Your task to perform on an android device: Search for the new Nike Air Jordan 33 on Nike.com Image 0: 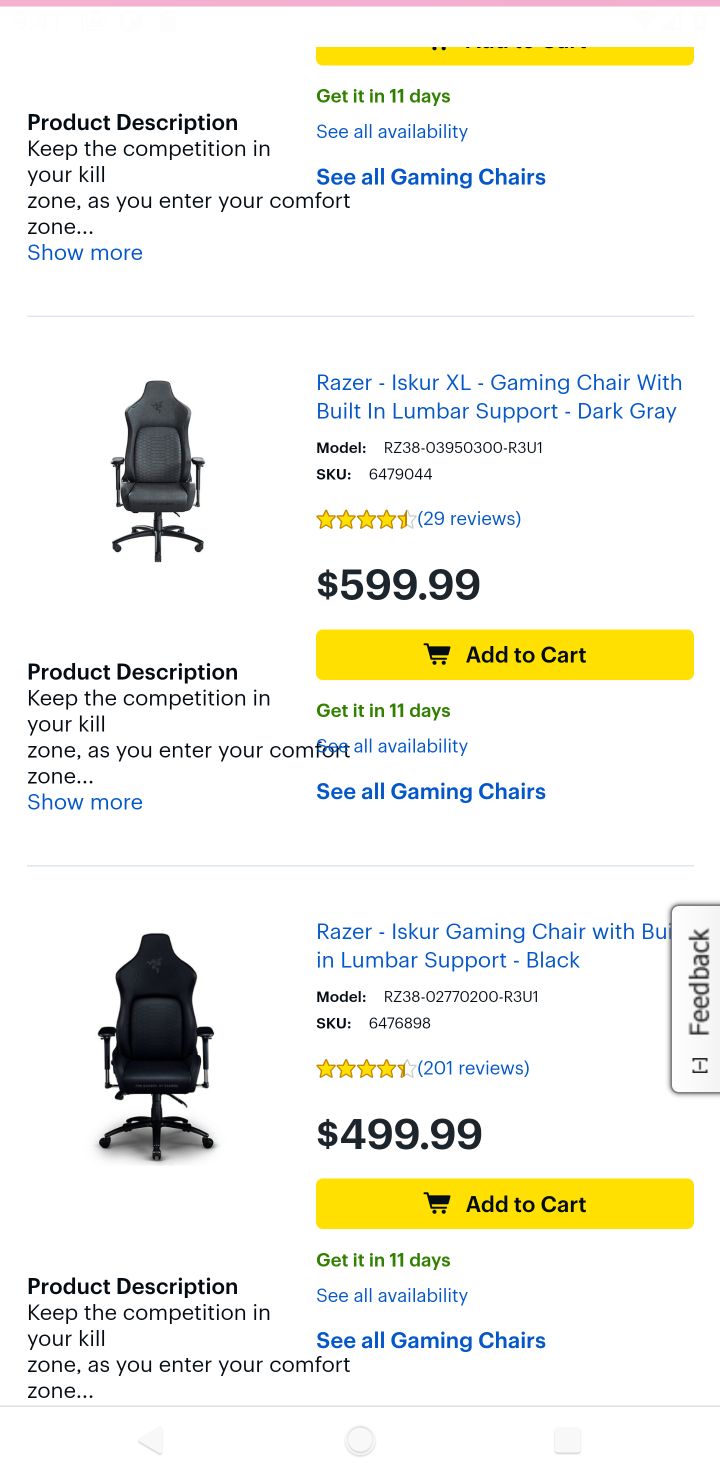
Step 0: press home button
Your task to perform on an android device: Search for the new Nike Air Jordan 33 on Nike.com Image 1: 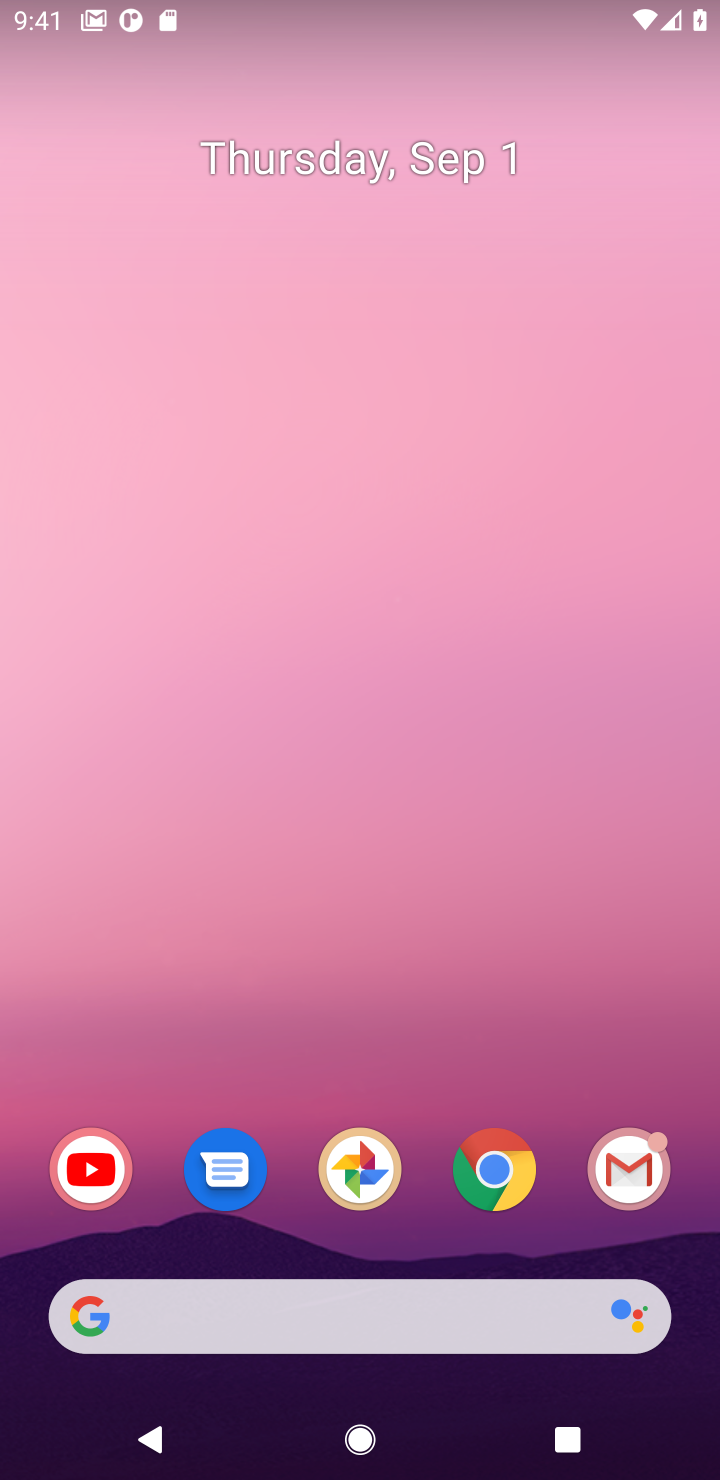
Step 1: drag from (420, 1108) to (495, 73)
Your task to perform on an android device: Search for the new Nike Air Jordan 33 on Nike.com Image 2: 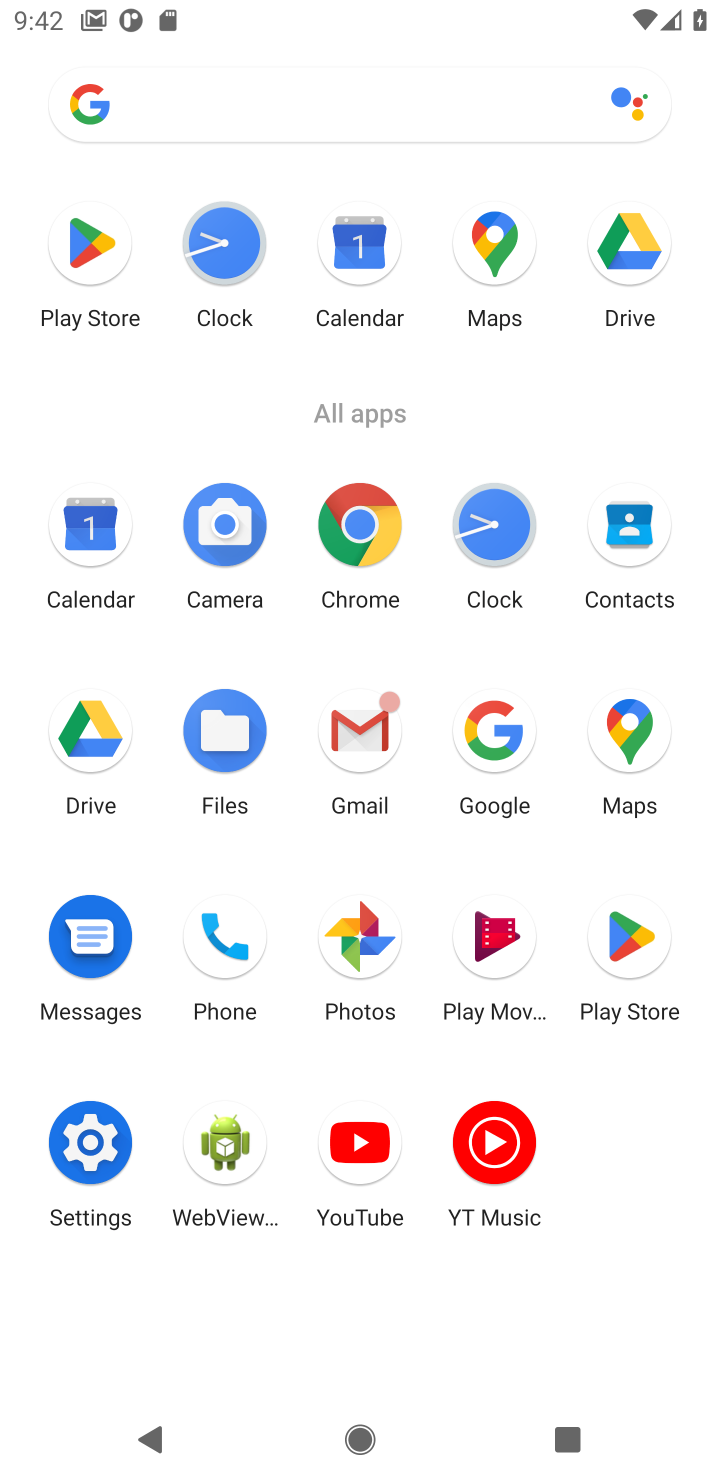
Step 2: click (366, 522)
Your task to perform on an android device: Search for the new Nike Air Jordan 33 on Nike.com Image 3: 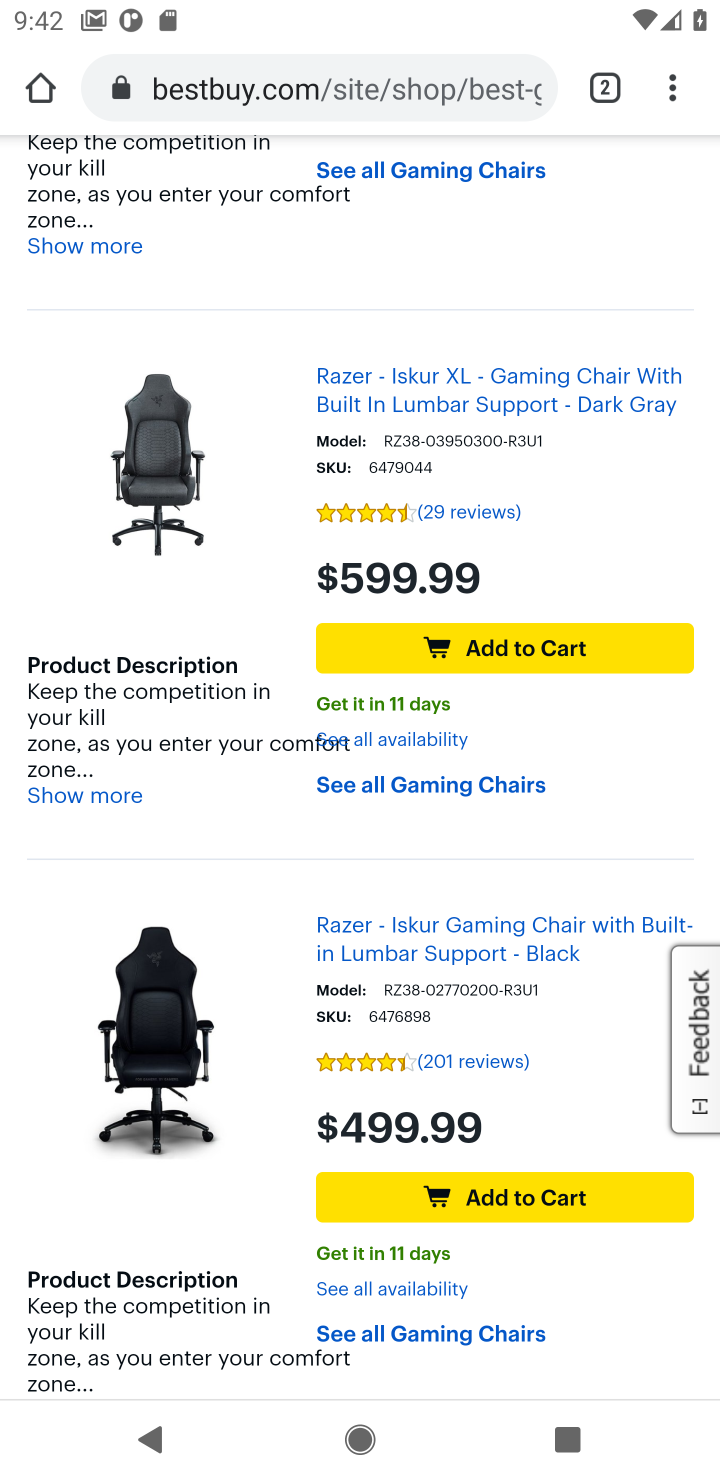
Step 3: click (395, 90)
Your task to perform on an android device: Search for the new Nike Air Jordan 33 on Nike.com Image 4: 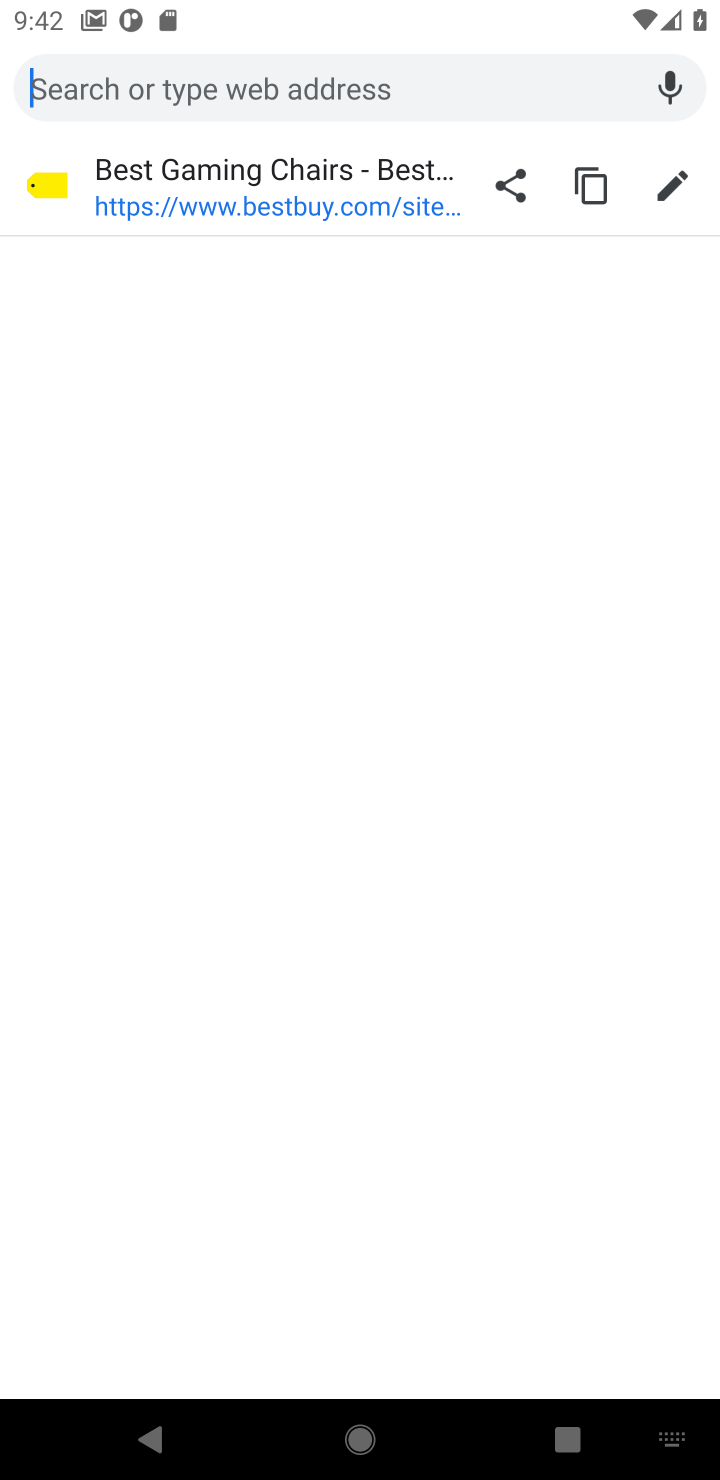
Step 4: type "new Nike Air Jordan 33 on Nike.com"
Your task to perform on an android device: Search for the new Nike Air Jordan 33 on Nike.com Image 5: 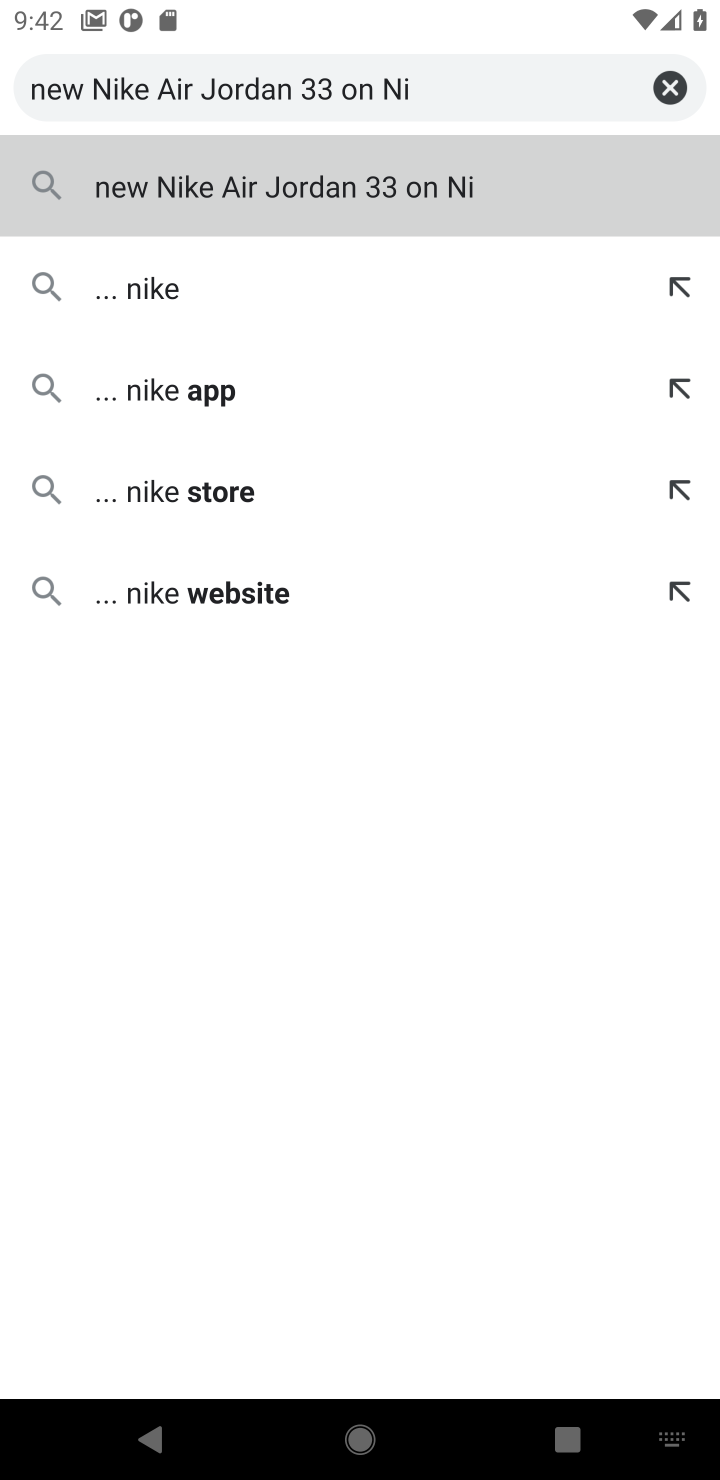
Step 5: type "ke.com"
Your task to perform on an android device: Search for the new Nike Air Jordan 33 on Nike.com Image 6: 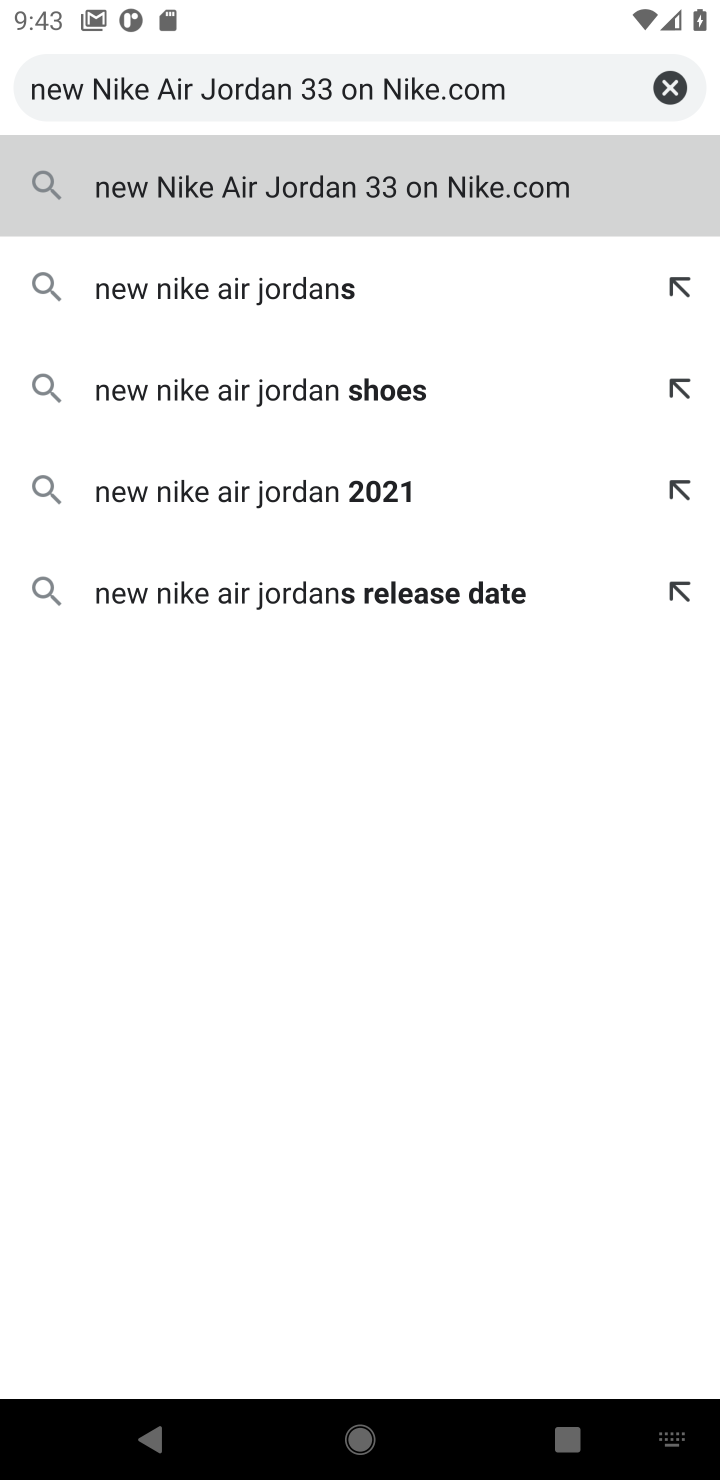
Step 6: click (326, 194)
Your task to perform on an android device: Search for the new Nike Air Jordan 33 on Nike.com Image 7: 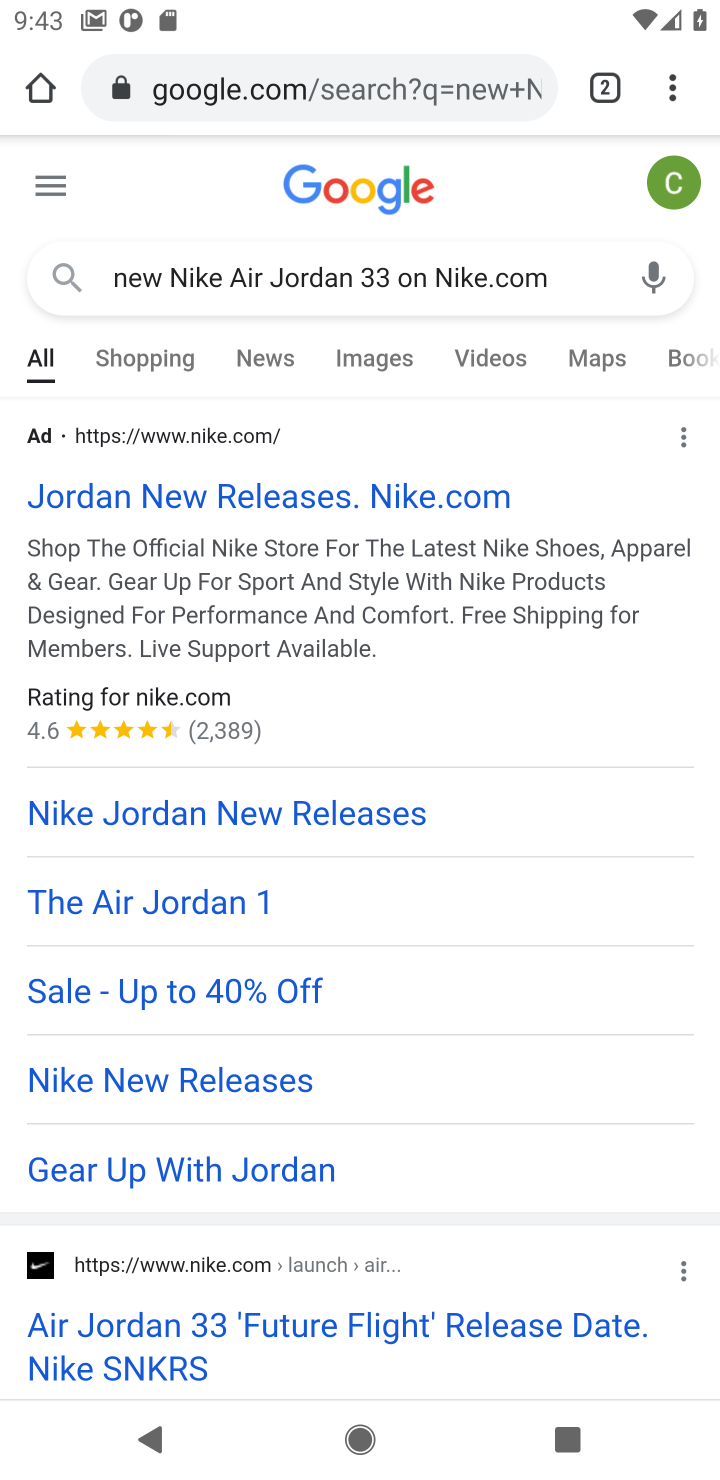
Step 7: click (288, 824)
Your task to perform on an android device: Search for the new Nike Air Jordan 33 on Nike.com Image 8: 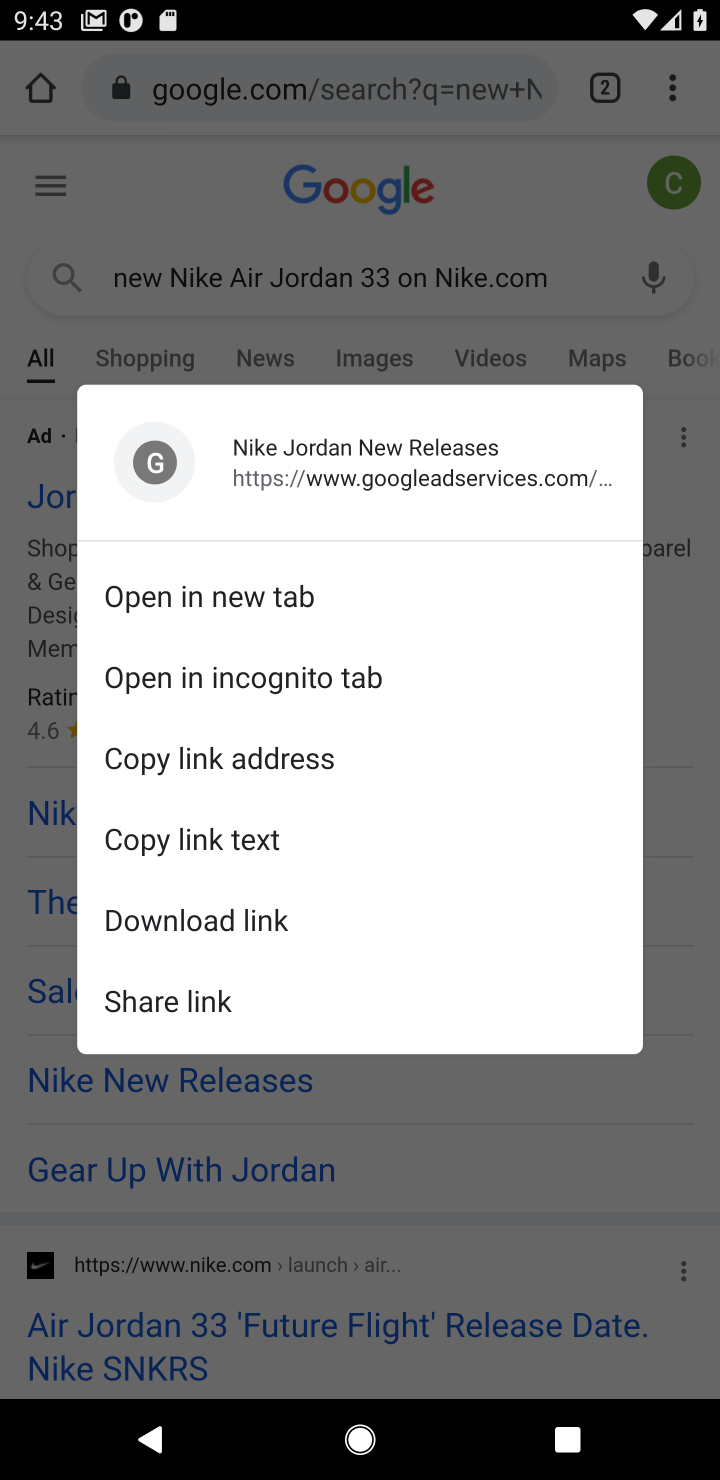
Step 8: click (228, 1257)
Your task to perform on an android device: Search for the new Nike Air Jordan 33 on Nike.com Image 9: 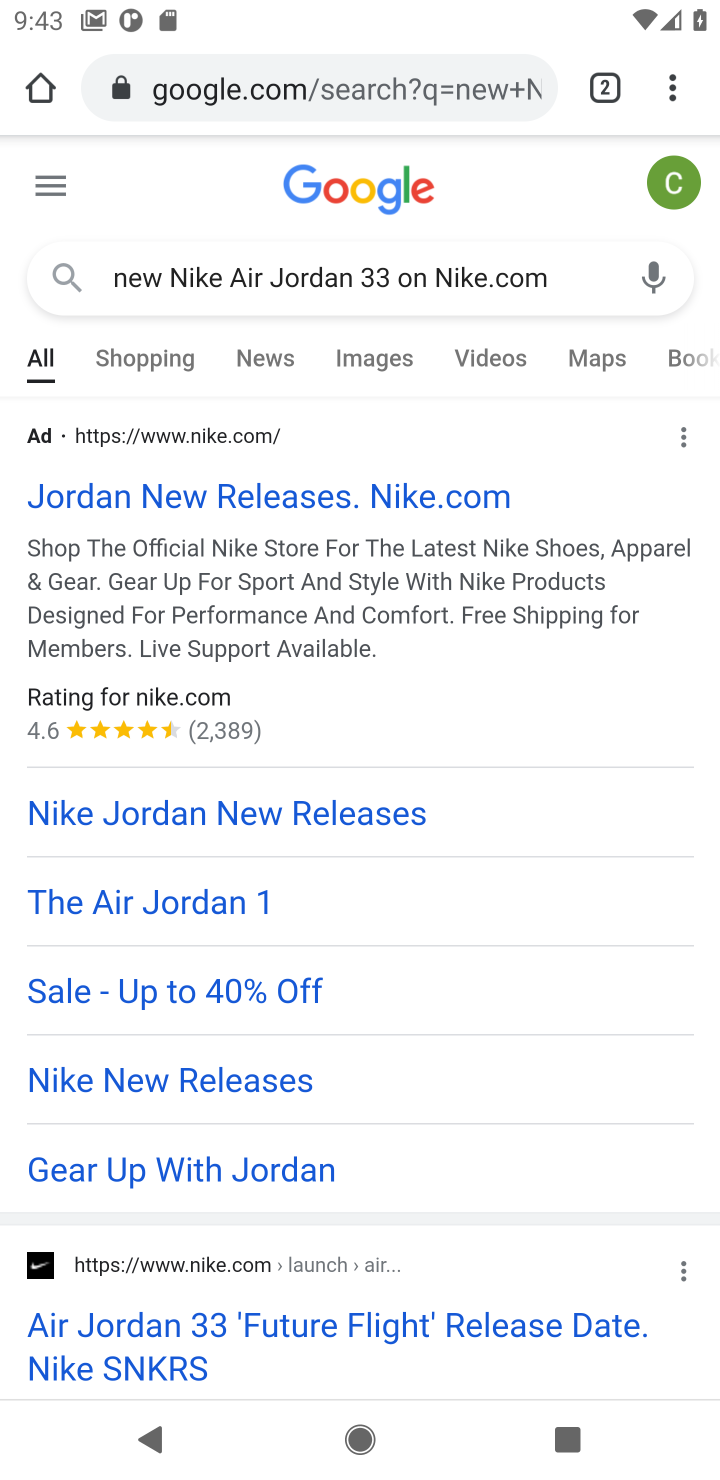
Step 9: drag from (329, 1302) to (441, 595)
Your task to perform on an android device: Search for the new Nike Air Jordan 33 on Nike.com Image 10: 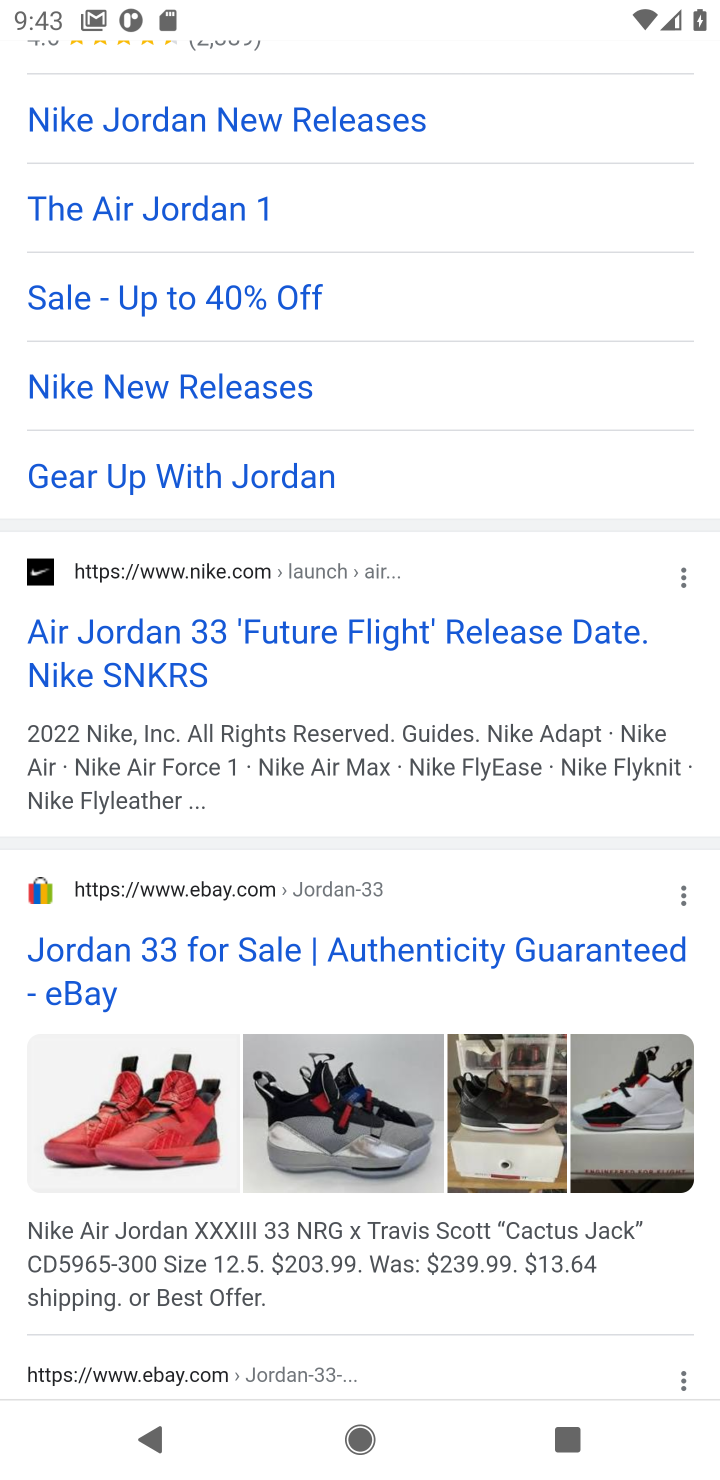
Step 10: click (179, 130)
Your task to perform on an android device: Search for the new Nike Air Jordan 33 on Nike.com Image 11: 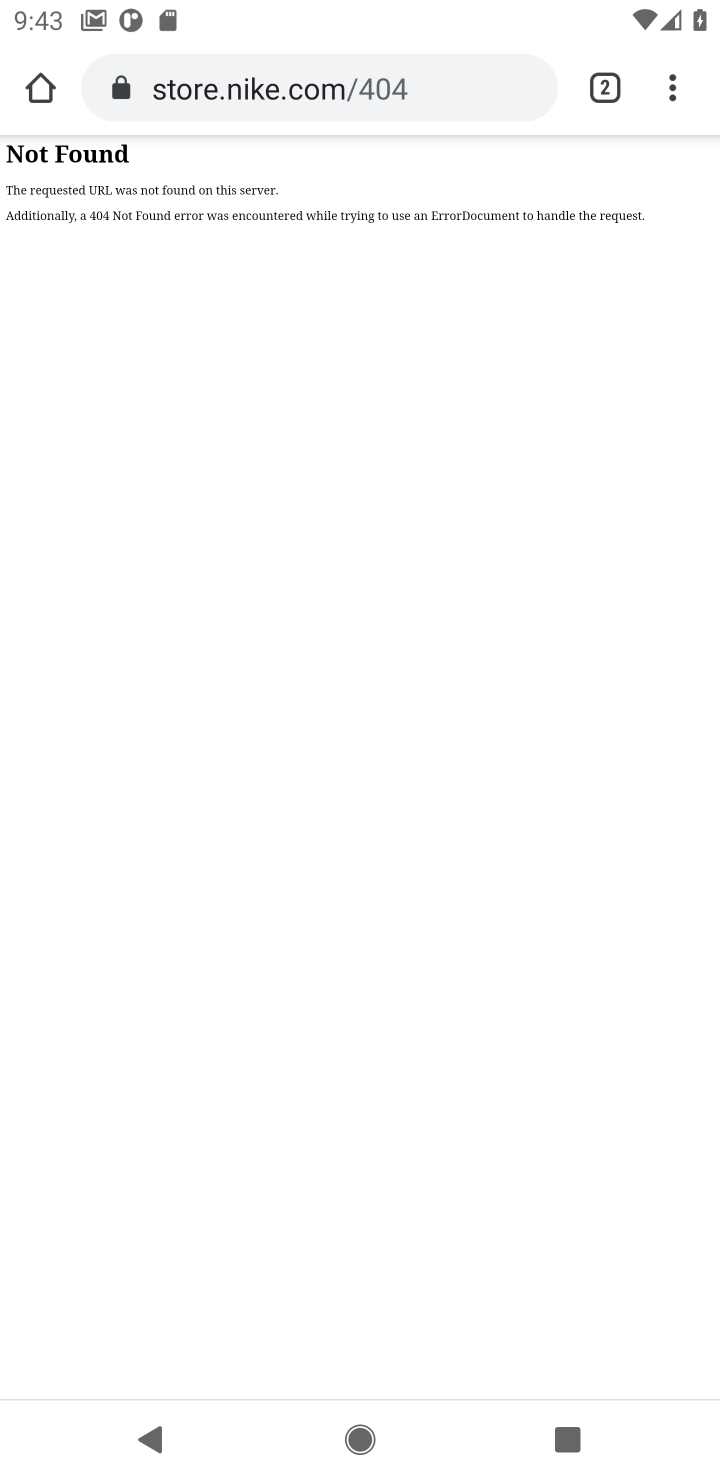
Step 11: press back button
Your task to perform on an android device: Search for the new Nike Air Jordan 33 on Nike.com Image 12: 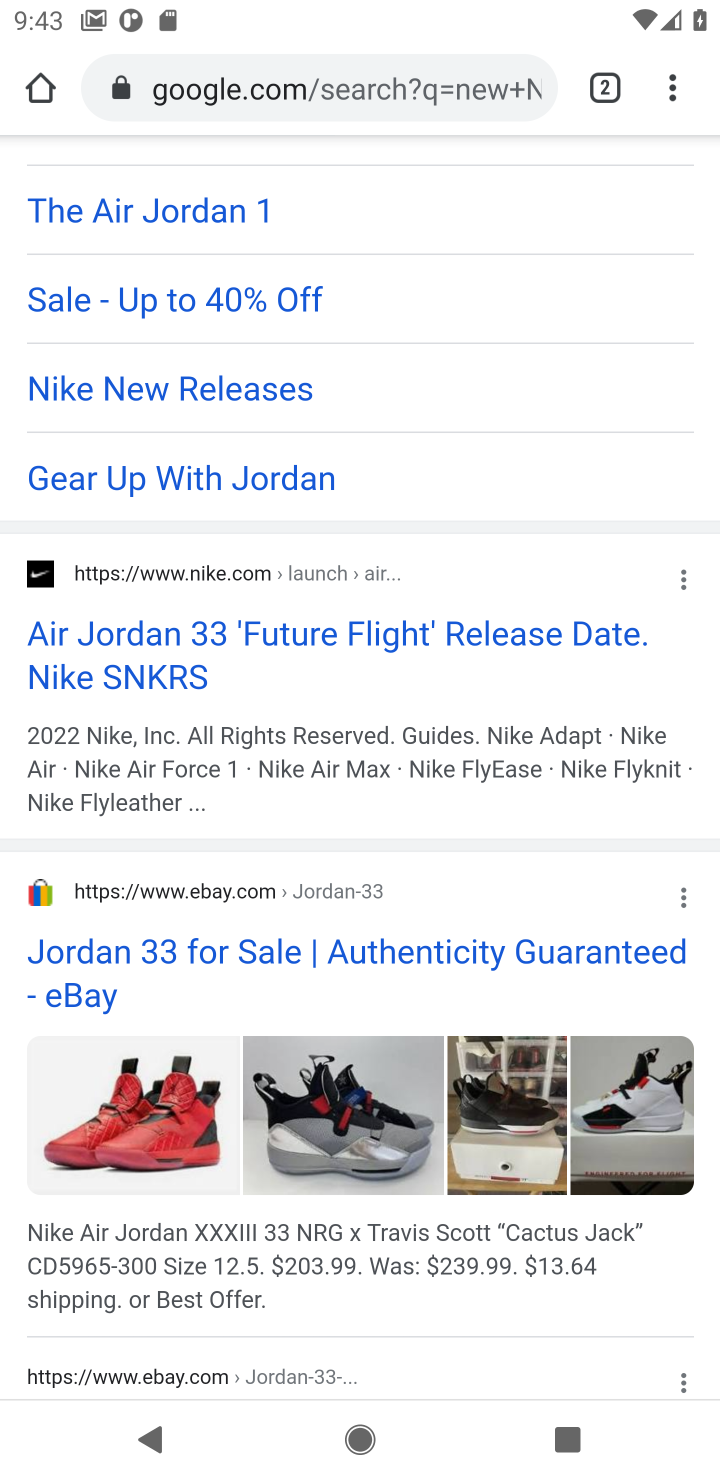
Step 12: drag from (234, 567) to (330, 1058)
Your task to perform on an android device: Search for the new Nike Air Jordan 33 on Nike.com Image 13: 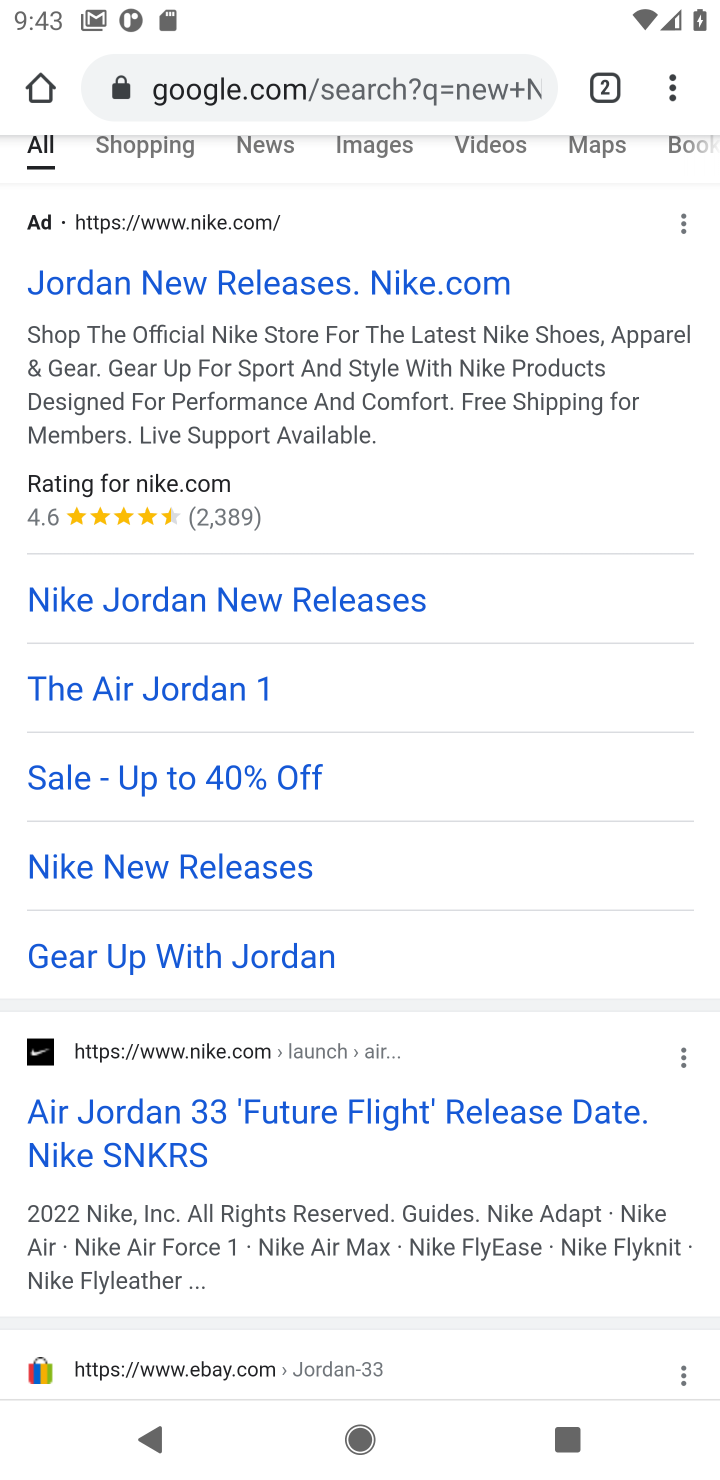
Step 13: click (220, 592)
Your task to perform on an android device: Search for the new Nike Air Jordan 33 on Nike.com Image 14: 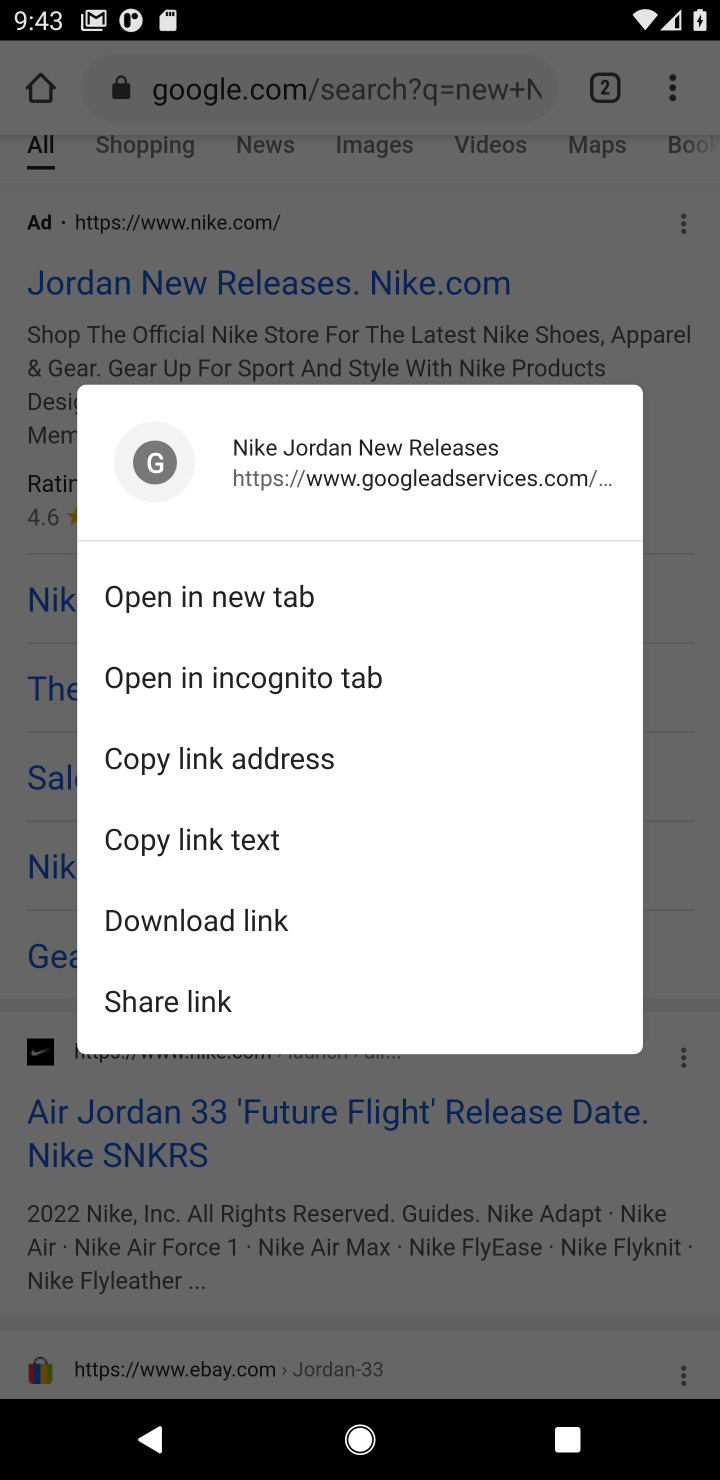
Step 14: click (14, 602)
Your task to perform on an android device: Search for the new Nike Air Jordan 33 on Nike.com Image 15: 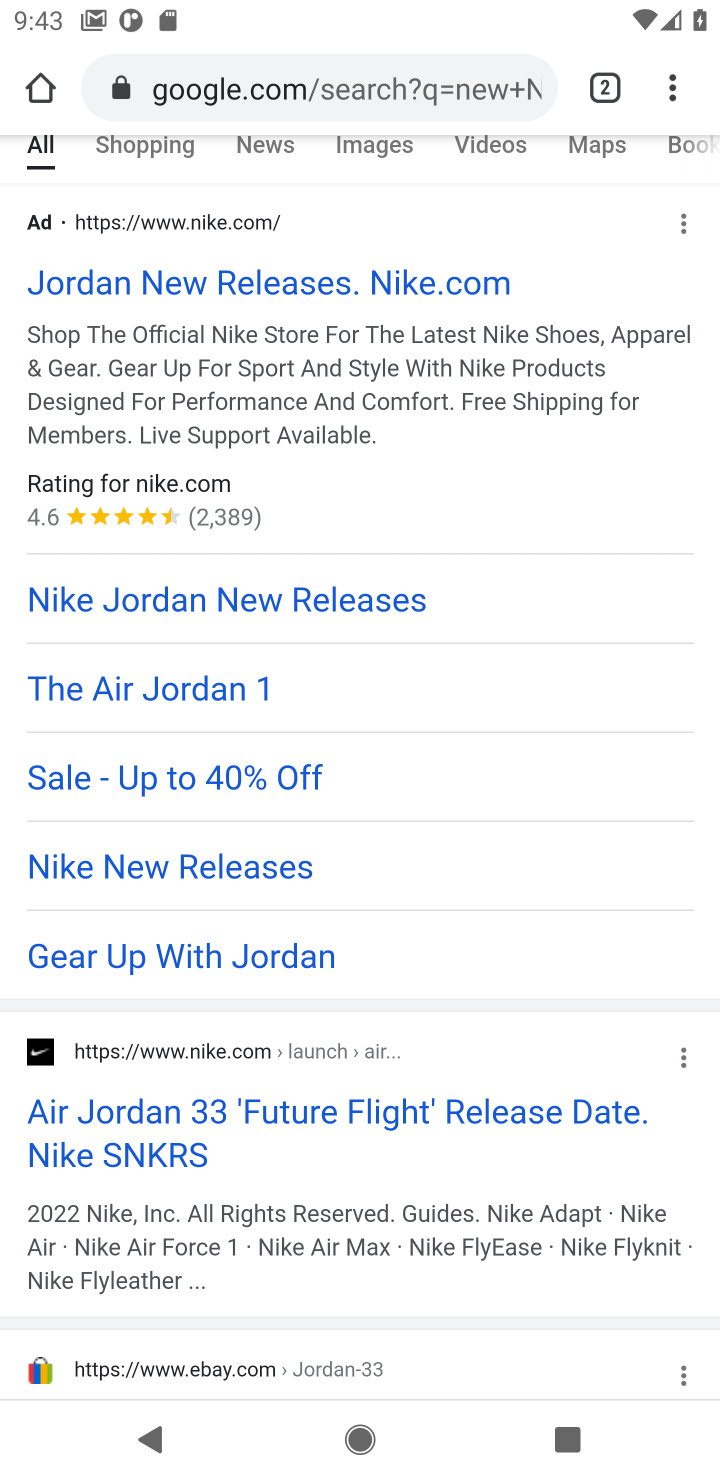
Step 15: click (61, 606)
Your task to perform on an android device: Search for the new Nike Air Jordan 33 on Nike.com Image 16: 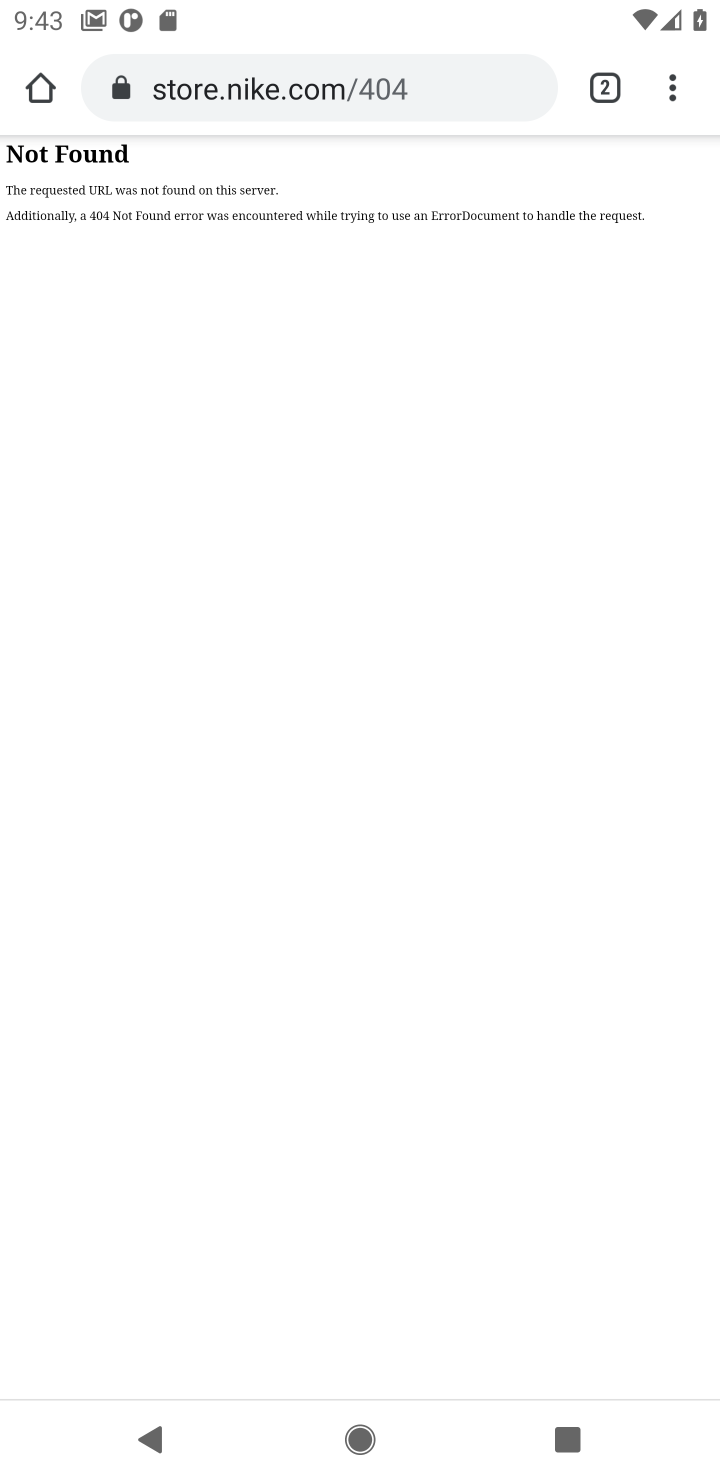
Step 16: press back button
Your task to perform on an android device: Search for the new Nike Air Jordan 33 on Nike.com Image 17: 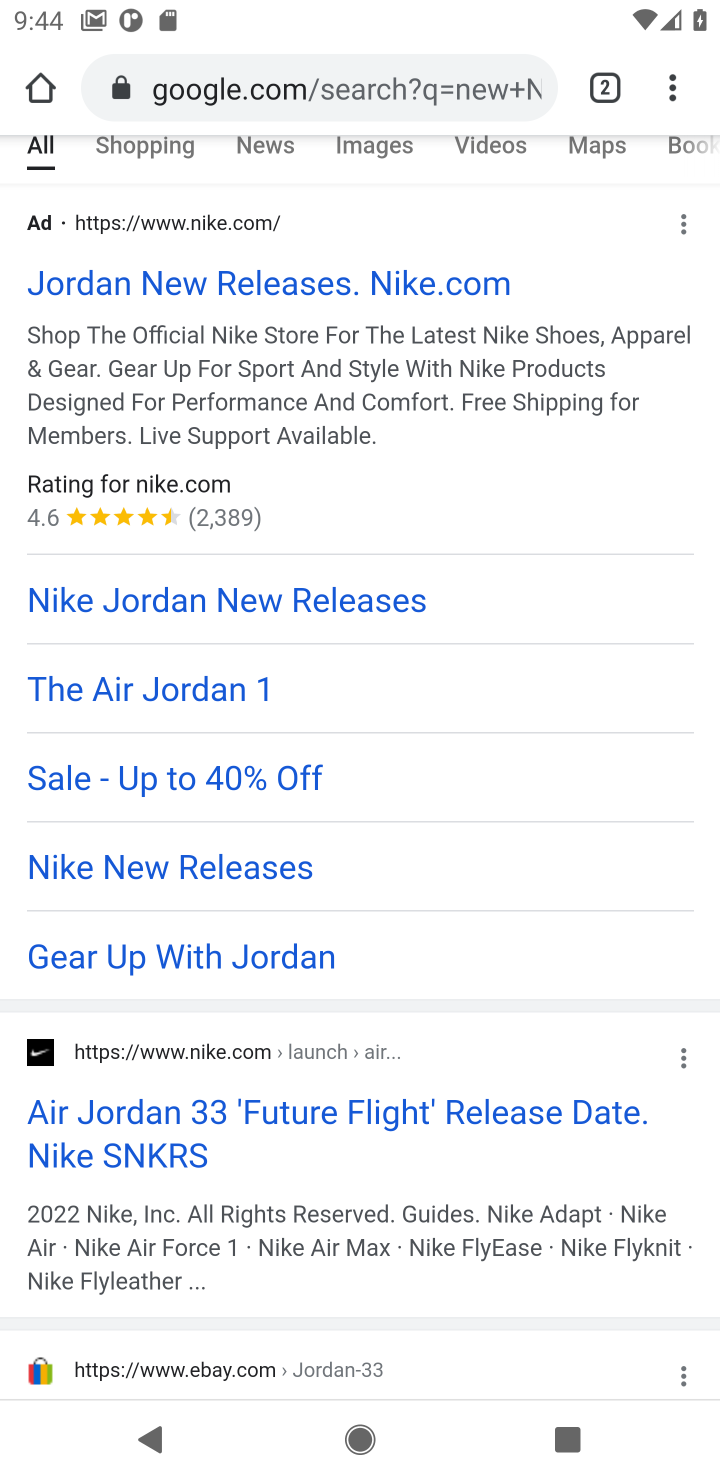
Step 17: click (208, 1111)
Your task to perform on an android device: Search for the new Nike Air Jordan 33 on Nike.com Image 18: 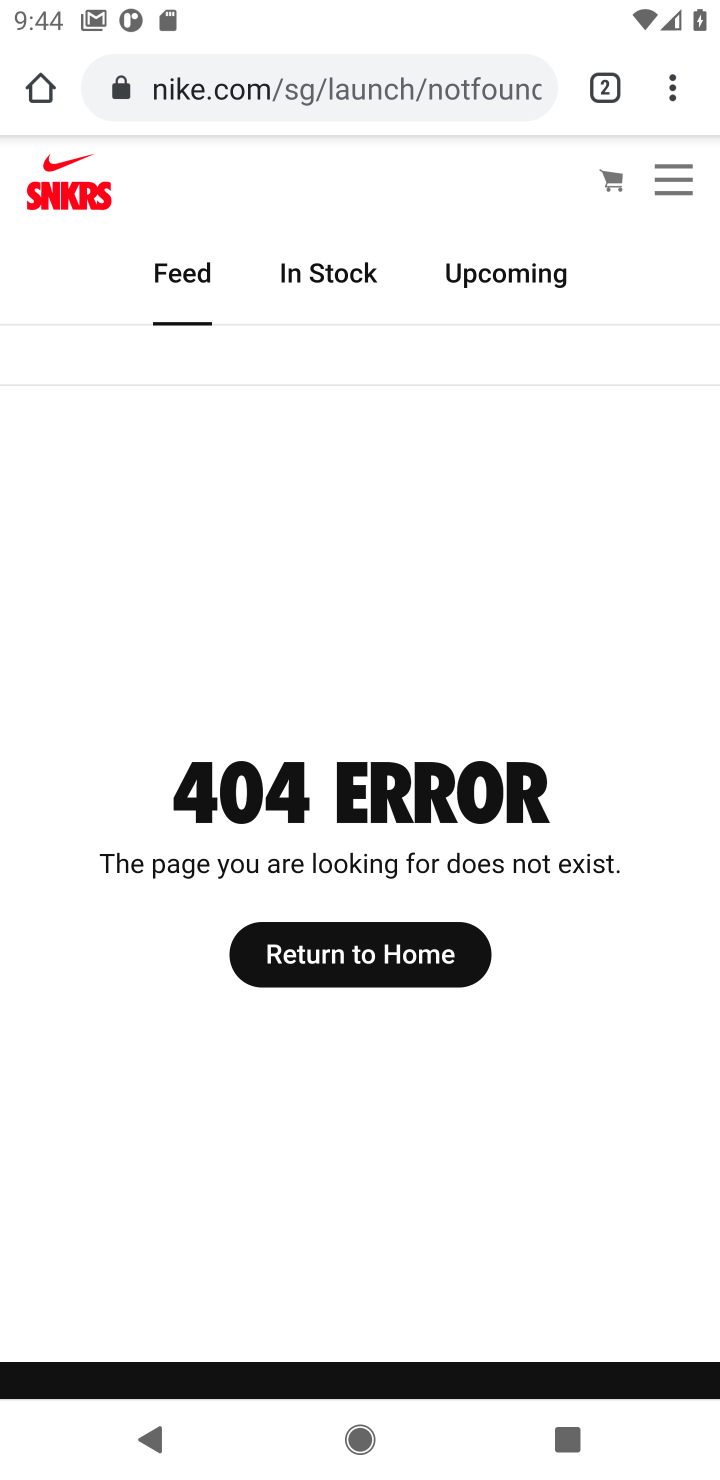
Step 18: task complete